Your task to perform on an android device: Open accessibility settings Image 0: 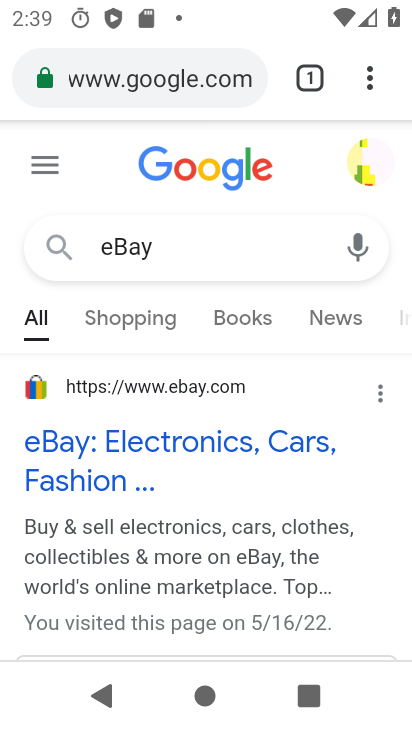
Step 0: press home button
Your task to perform on an android device: Open accessibility settings Image 1: 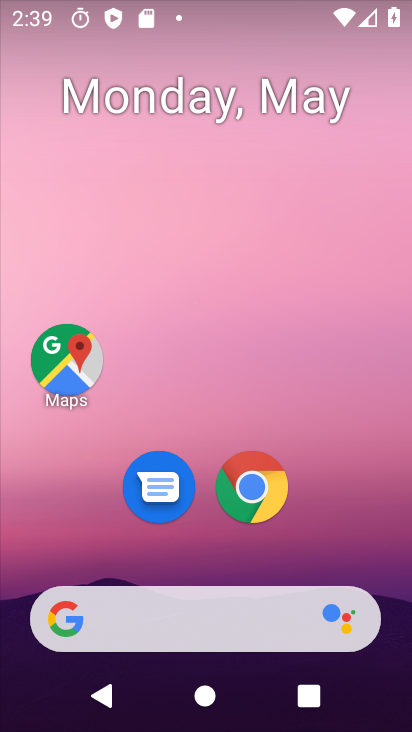
Step 1: drag from (211, 560) to (311, 6)
Your task to perform on an android device: Open accessibility settings Image 2: 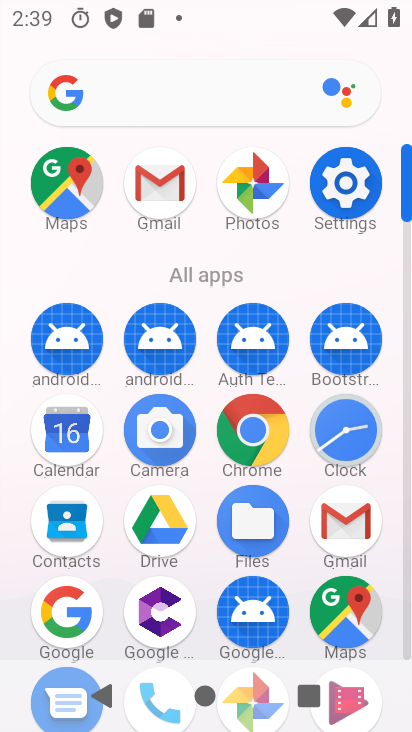
Step 2: click (356, 198)
Your task to perform on an android device: Open accessibility settings Image 3: 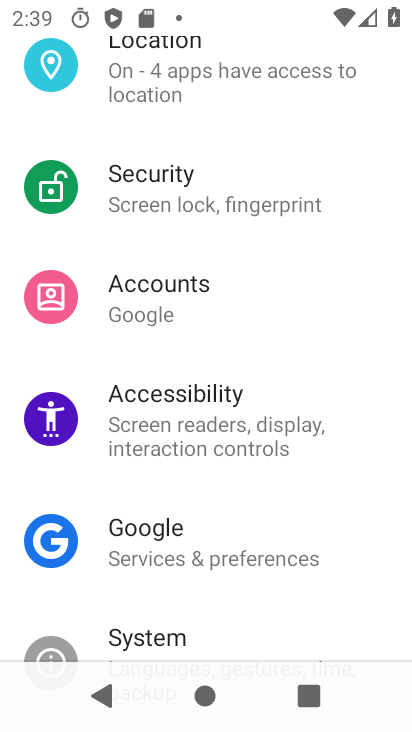
Step 3: click (238, 397)
Your task to perform on an android device: Open accessibility settings Image 4: 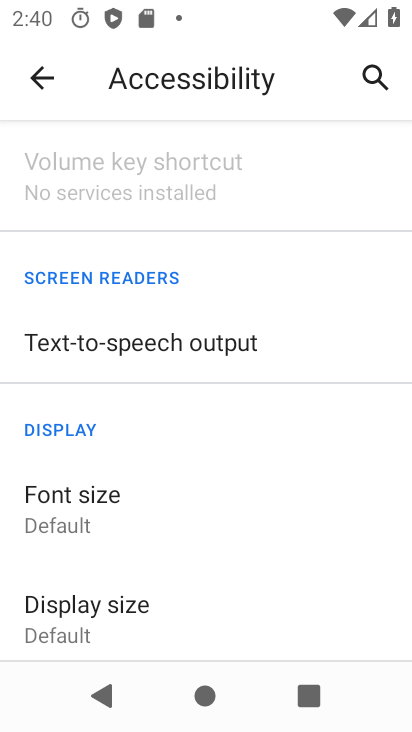
Step 4: task complete